Your task to perform on an android device: toggle data saver in the chrome app Image 0: 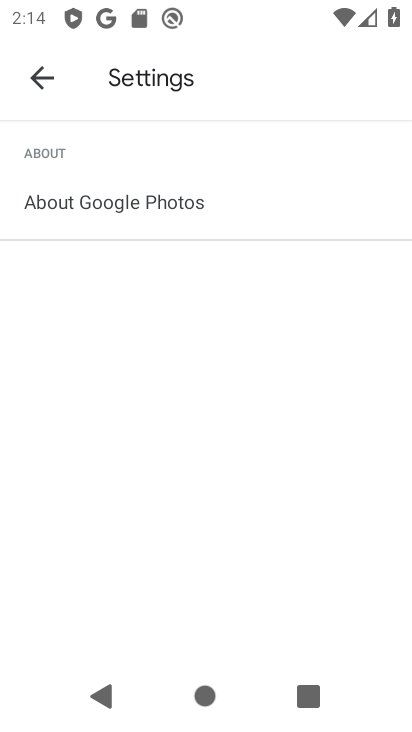
Step 0: press back button
Your task to perform on an android device: toggle data saver in the chrome app Image 1: 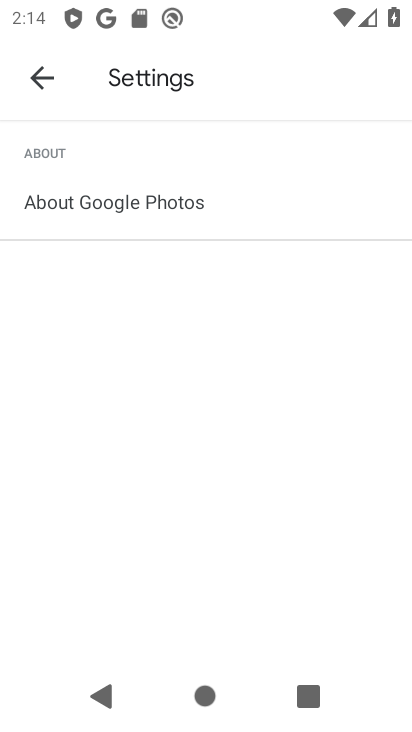
Step 1: press back button
Your task to perform on an android device: toggle data saver in the chrome app Image 2: 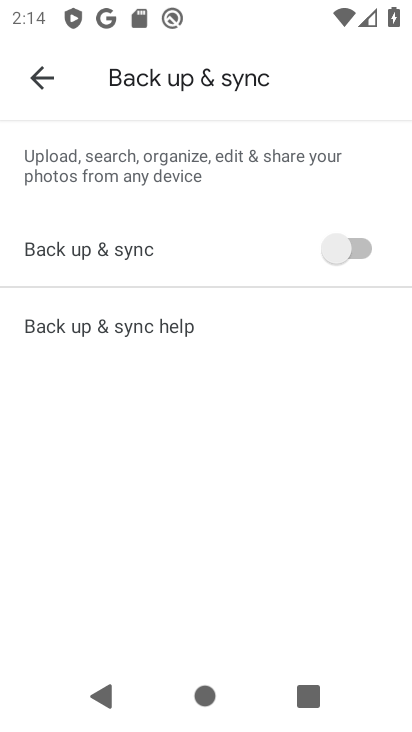
Step 2: press back button
Your task to perform on an android device: toggle data saver in the chrome app Image 3: 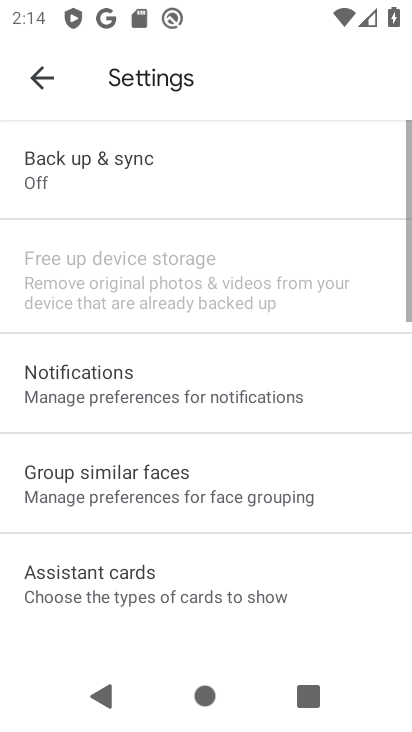
Step 3: press back button
Your task to perform on an android device: toggle data saver in the chrome app Image 4: 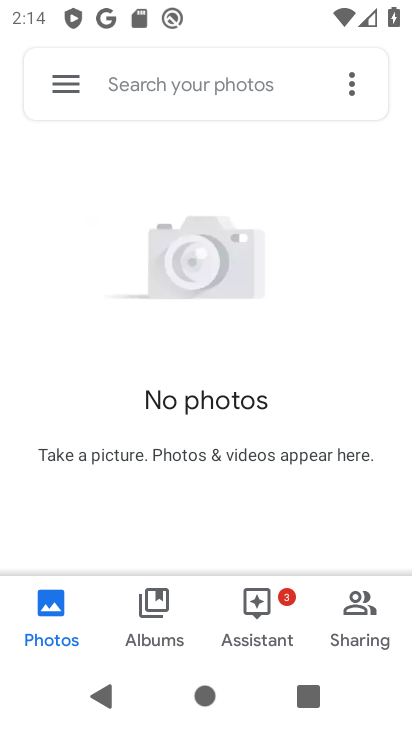
Step 4: press back button
Your task to perform on an android device: toggle data saver in the chrome app Image 5: 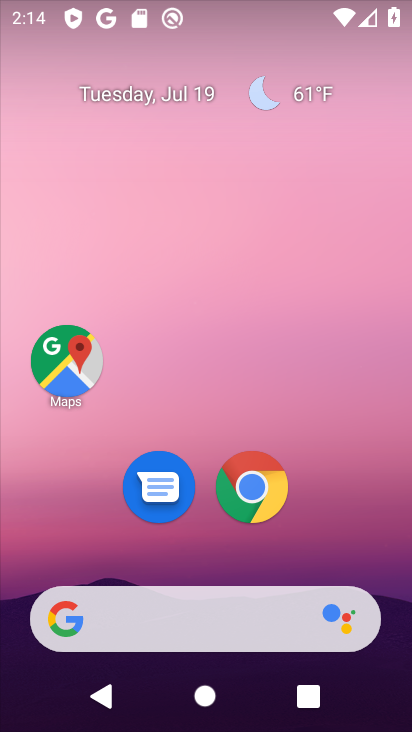
Step 5: click (252, 481)
Your task to perform on an android device: toggle data saver in the chrome app Image 6: 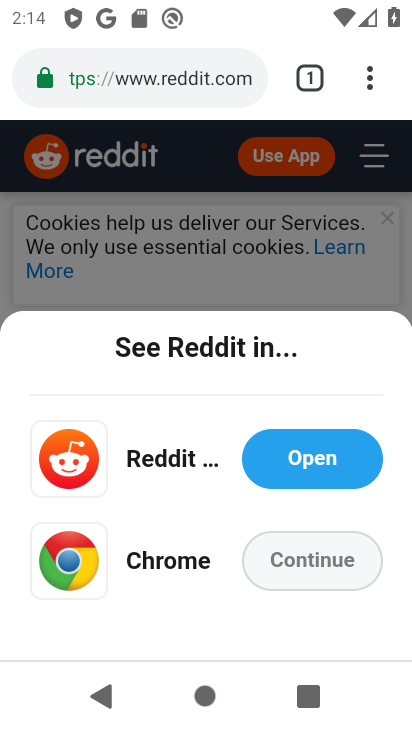
Step 6: drag from (364, 76) to (125, 539)
Your task to perform on an android device: toggle data saver in the chrome app Image 7: 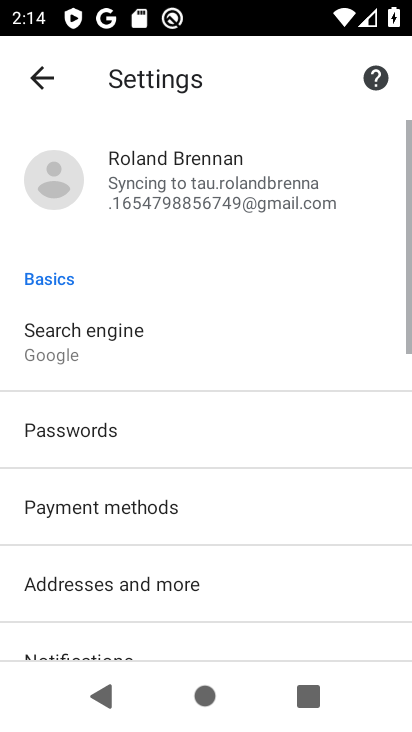
Step 7: drag from (145, 620) to (216, 182)
Your task to perform on an android device: toggle data saver in the chrome app Image 8: 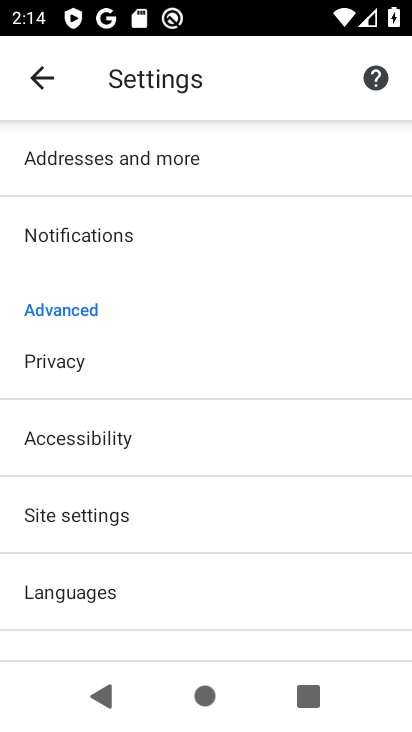
Step 8: drag from (122, 596) to (206, 258)
Your task to perform on an android device: toggle data saver in the chrome app Image 9: 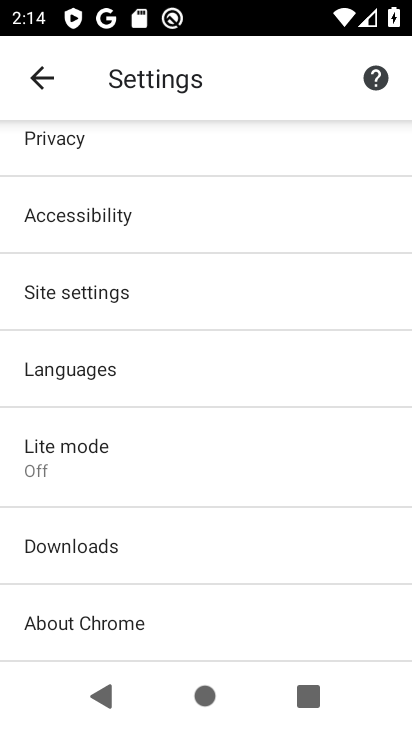
Step 9: click (66, 462)
Your task to perform on an android device: toggle data saver in the chrome app Image 10: 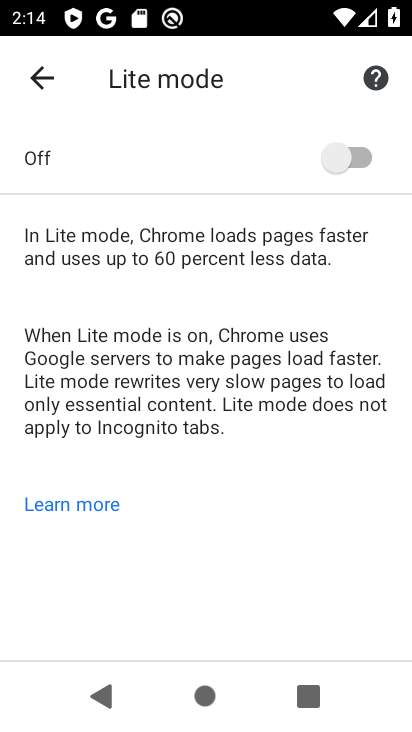
Step 10: click (359, 155)
Your task to perform on an android device: toggle data saver in the chrome app Image 11: 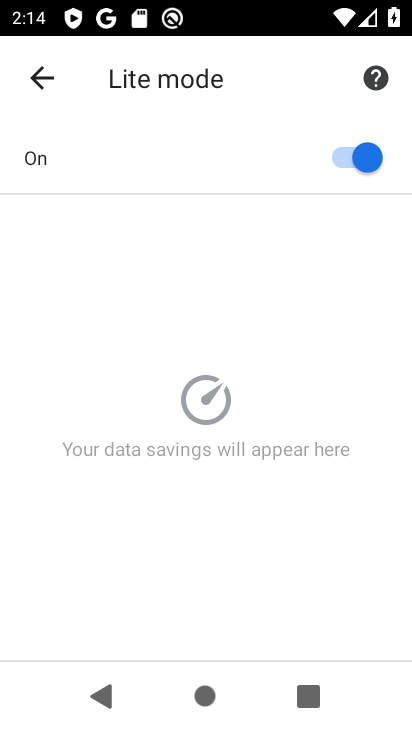
Step 11: task complete